Your task to perform on an android device: choose inbox layout in the gmail app Image 0: 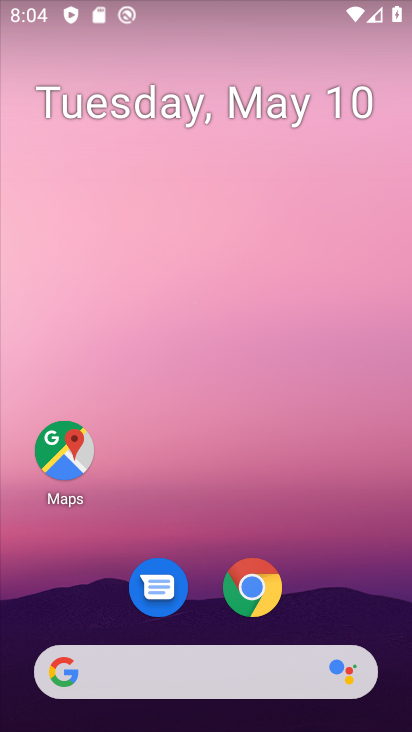
Step 0: drag from (393, 323) to (356, 70)
Your task to perform on an android device: choose inbox layout in the gmail app Image 1: 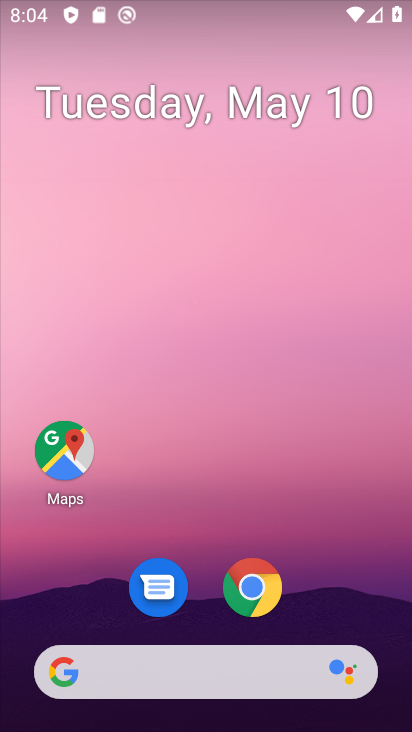
Step 1: drag from (330, 595) to (274, 2)
Your task to perform on an android device: choose inbox layout in the gmail app Image 2: 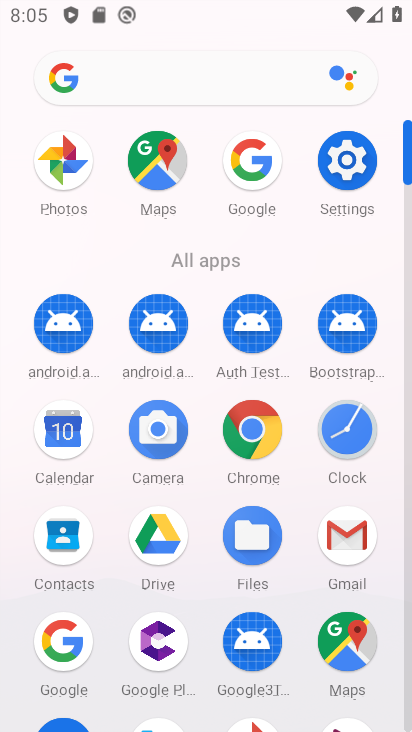
Step 2: click (340, 534)
Your task to perform on an android device: choose inbox layout in the gmail app Image 3: 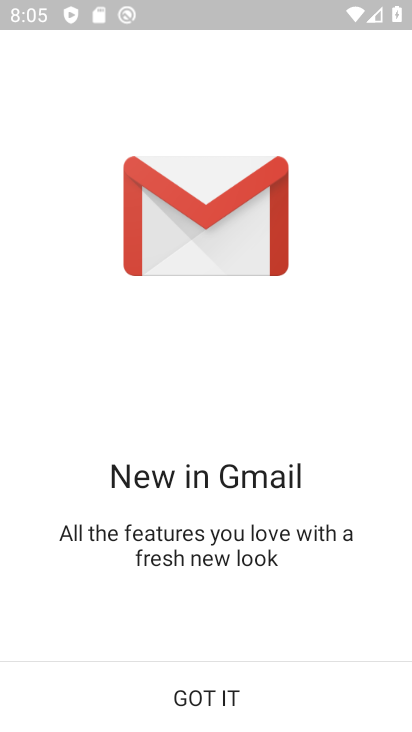
Step 3: click (239, 680)
Your task to perform on an android device: choose inbox layout in the gmail app Image 4: 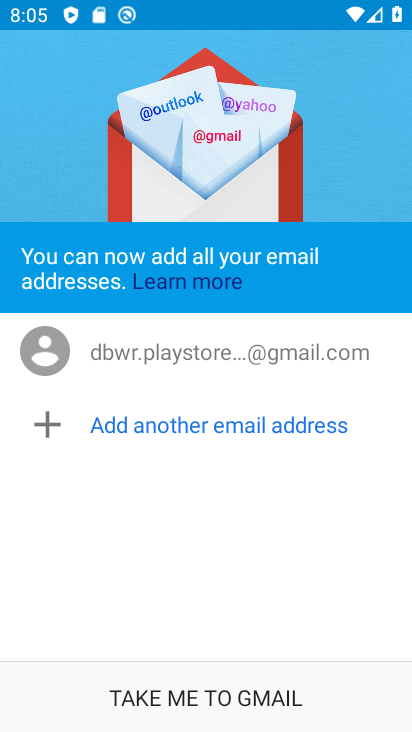
Step 4: click (231, 689)
Your task to perform on an android device: choose inbox layout in the gmail app Image 5: 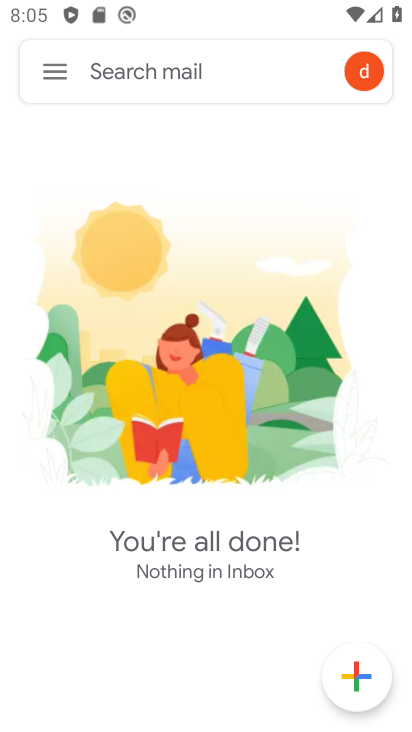
Step 5: click (52, 81)
Your task to perform on an android device: choose inbox layout in the gmail app Image 6: 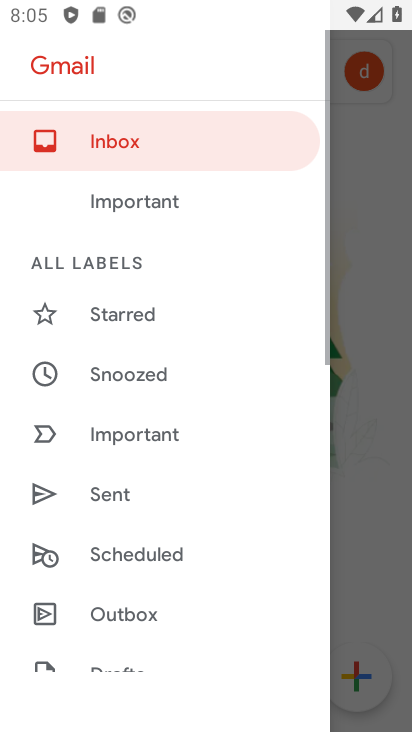
Step 6: drag from (172, 594) to (165, 143)
Your task to perform on an android device: choose inbox layout in the gmail app Image 7: 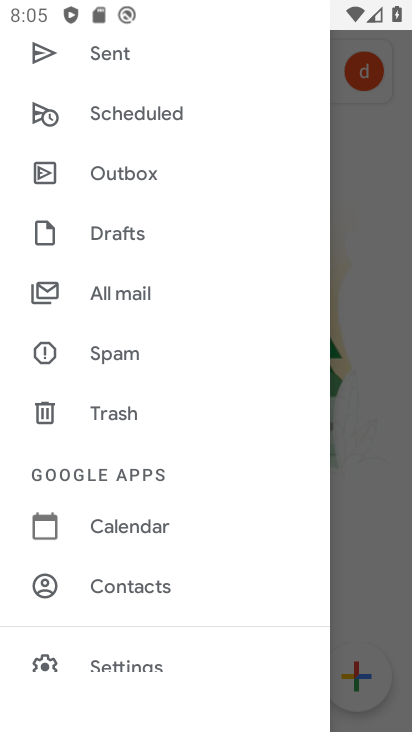
Step 7: drag from (125, 655) to (179, 330)
Your task to perform on an android device: choose inbox layout in the gmail app Image 8: 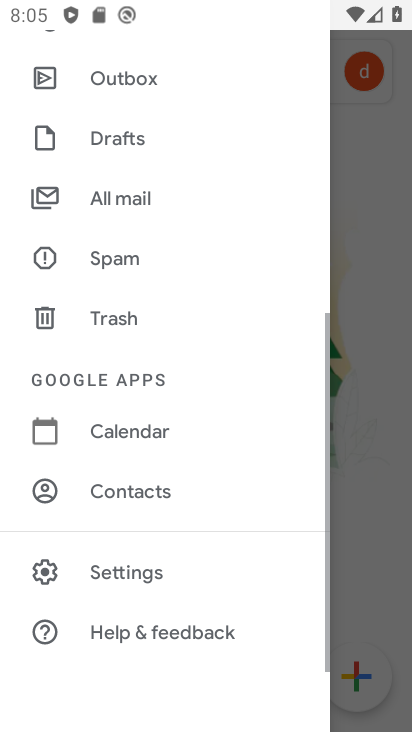
Step 8: click (129, 579)
Your task to perform on an android device: choose inbox layout in the gmail app Image 9: 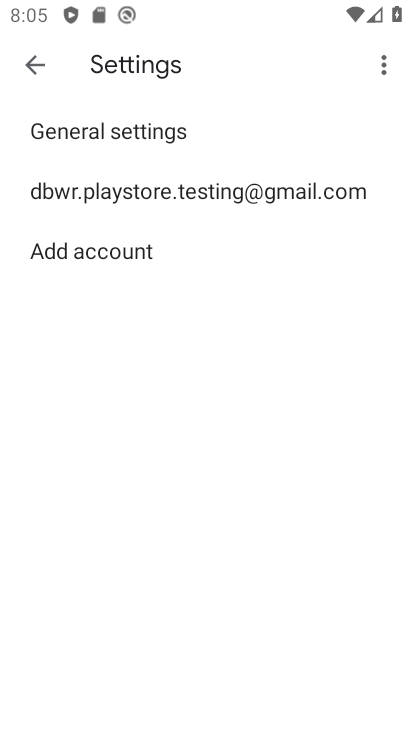
Step 9: click (128, 186)
Your task to perform on an android device: choose inbox layout in the gmail app Image 10: 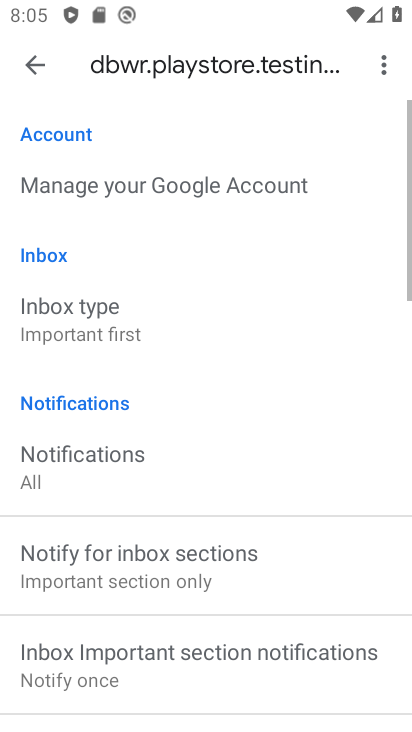
Step 10: click (84, 335)
Your task to perform on an android device: choose inbox layout in the gmail app Image 11: 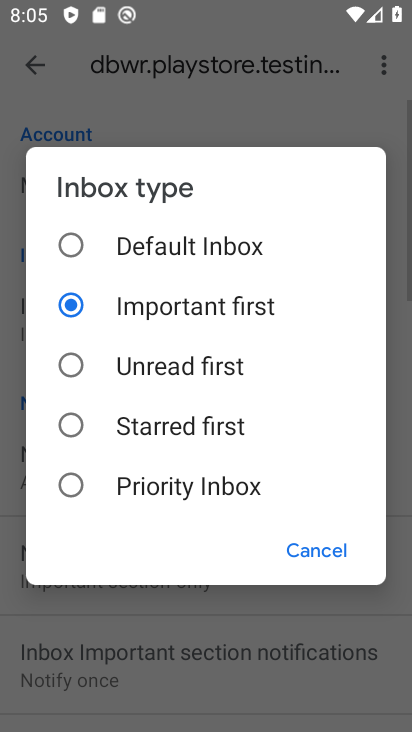
Step 11: click (68, 360)
Your task to perform on an android device: choose inbox layout in the gmail app Image 12: 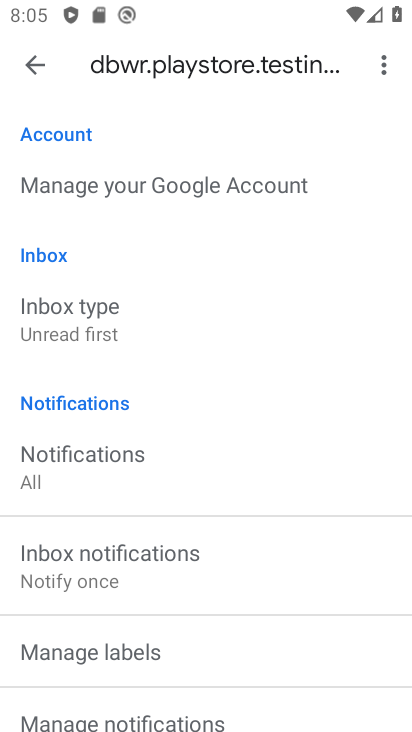
Step 12: task complete